Your task to perform on an android device: Go to sound settings Image 0: 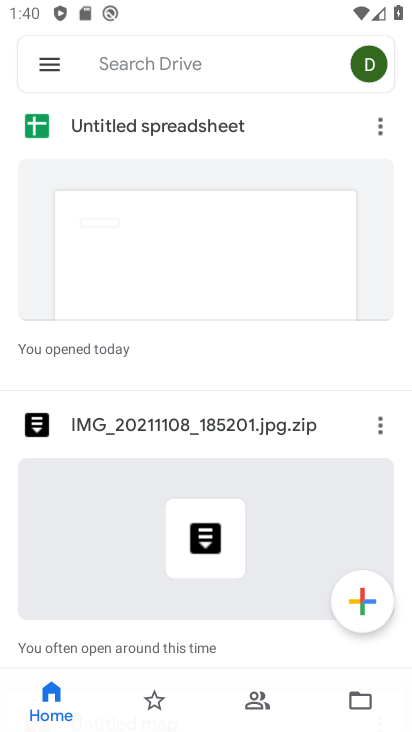
Step 0: press home button
Your task to perform on an android device: Go to sound settings Image 1: 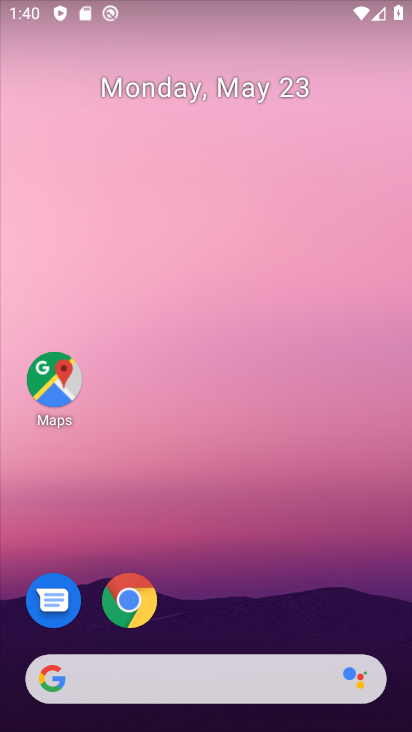
Step 1: drag from (239, 609) to (244, 182)
Your task to perform on an android device: Go to sound settings Image 2: 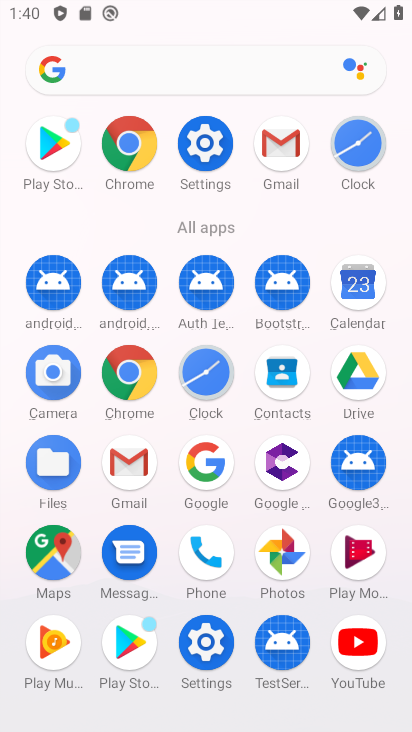
Step 2: click (202, 139)
Your task to perform on an android device: Go to sound settings Image 3: 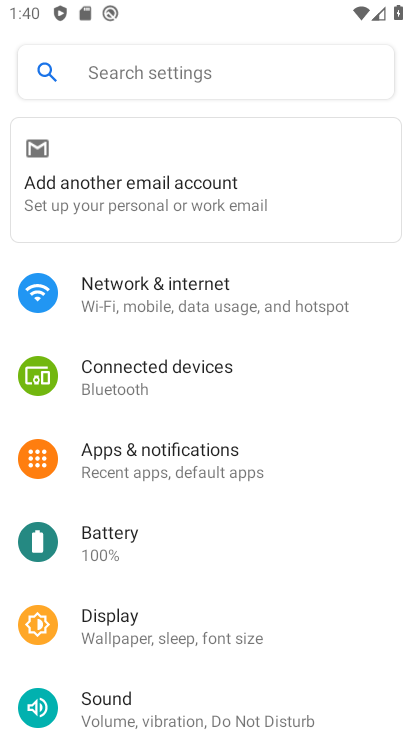
Step 3: click (234, 704)
Your task to perform on an android device: Go to sound settings Image 4: 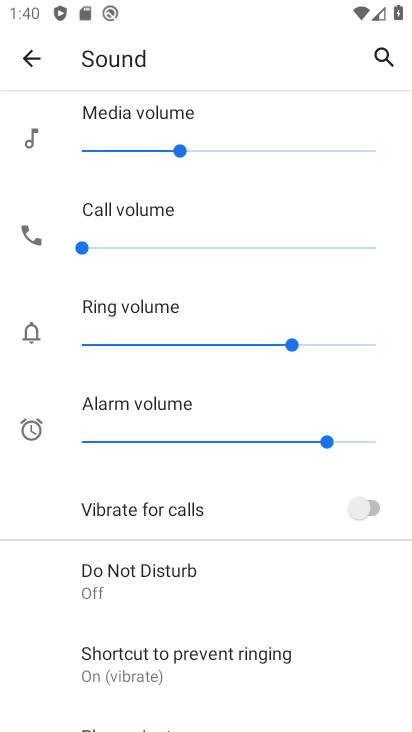
Step 4: task complete